Your task to perform on an android device: What's the time in San Francisco? Image 0: 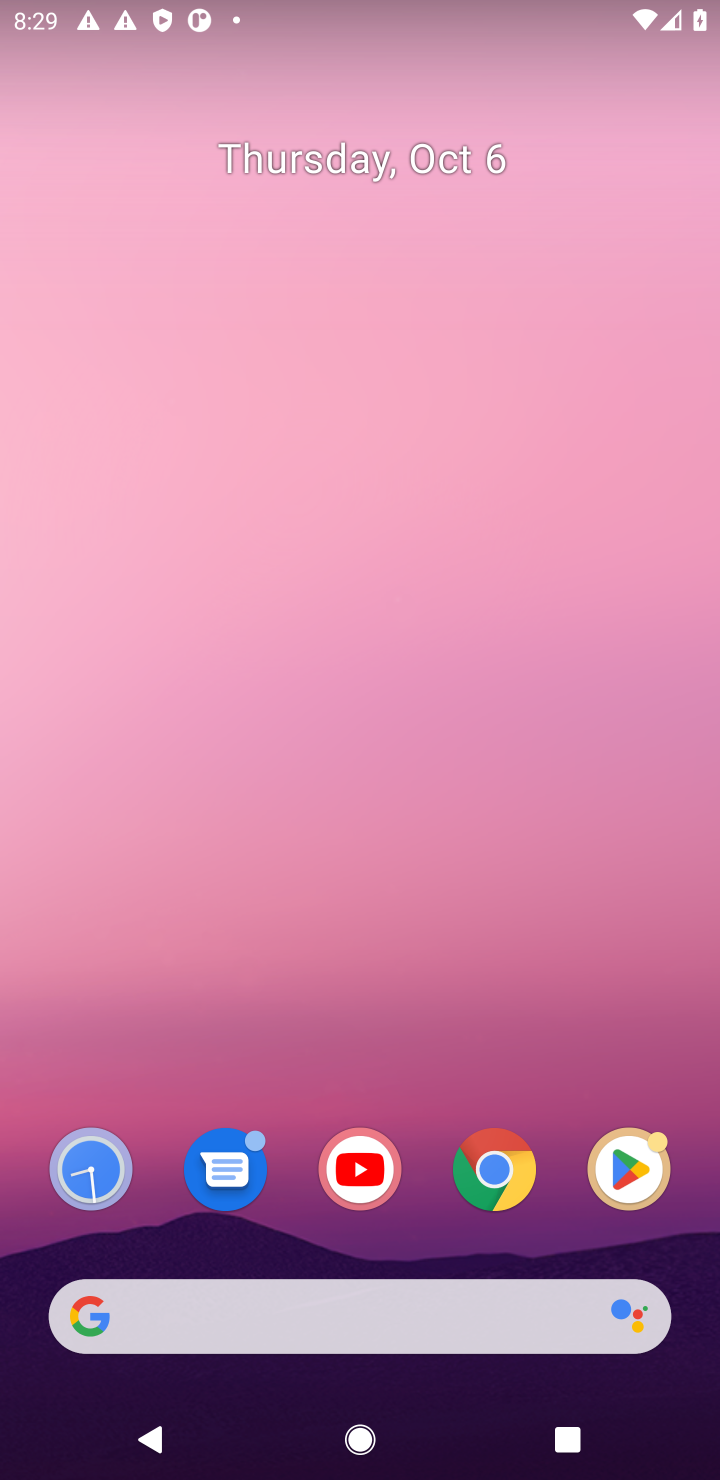
Step 0: click (538, 0)
Your task to perform on an android device: What's the time in San Francisco? Image 1: 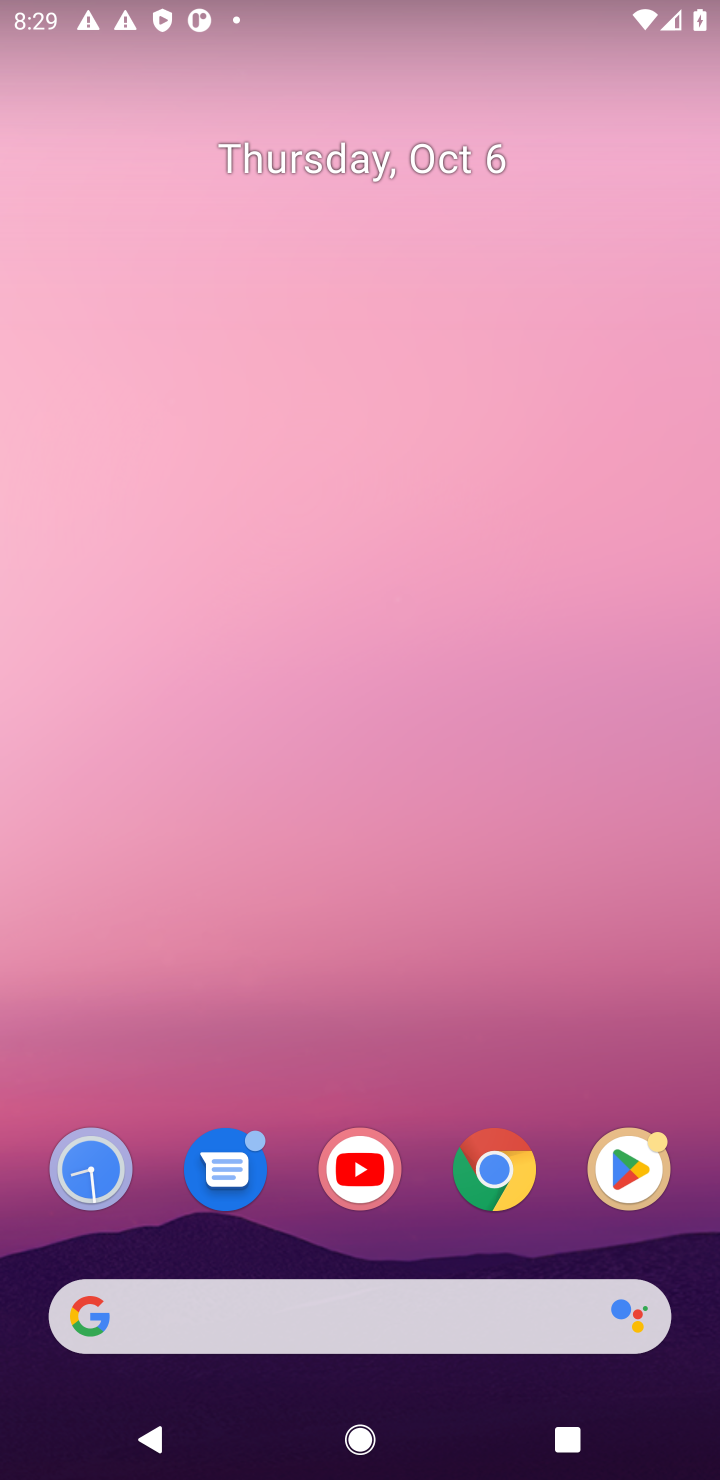
Step 1: drag from (373, 1202) to (485, 244)
Your task to perform on an android device: What's the time in San Francisco? Image 2: 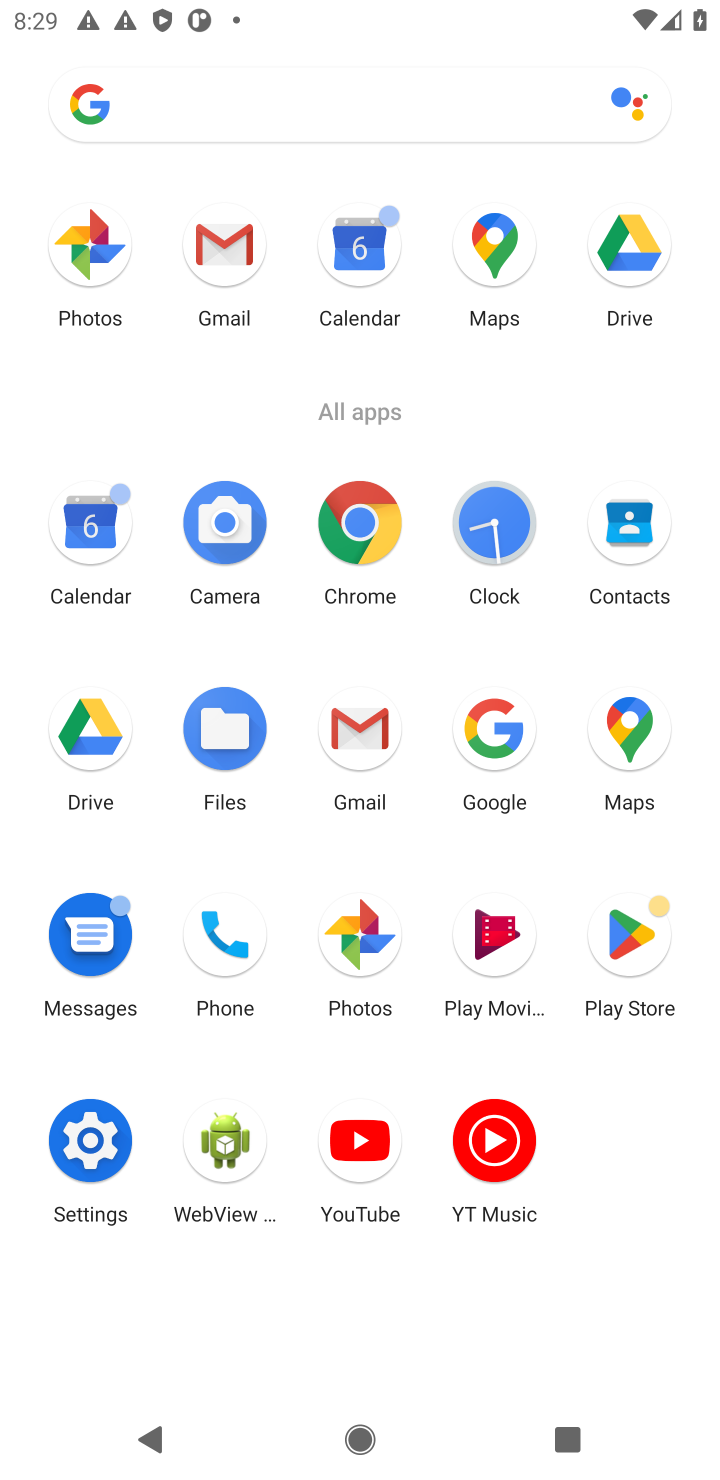
Step 2: click (490, 753)
Your task to perform on an android device: What's the time in San Francisco? Image 3: 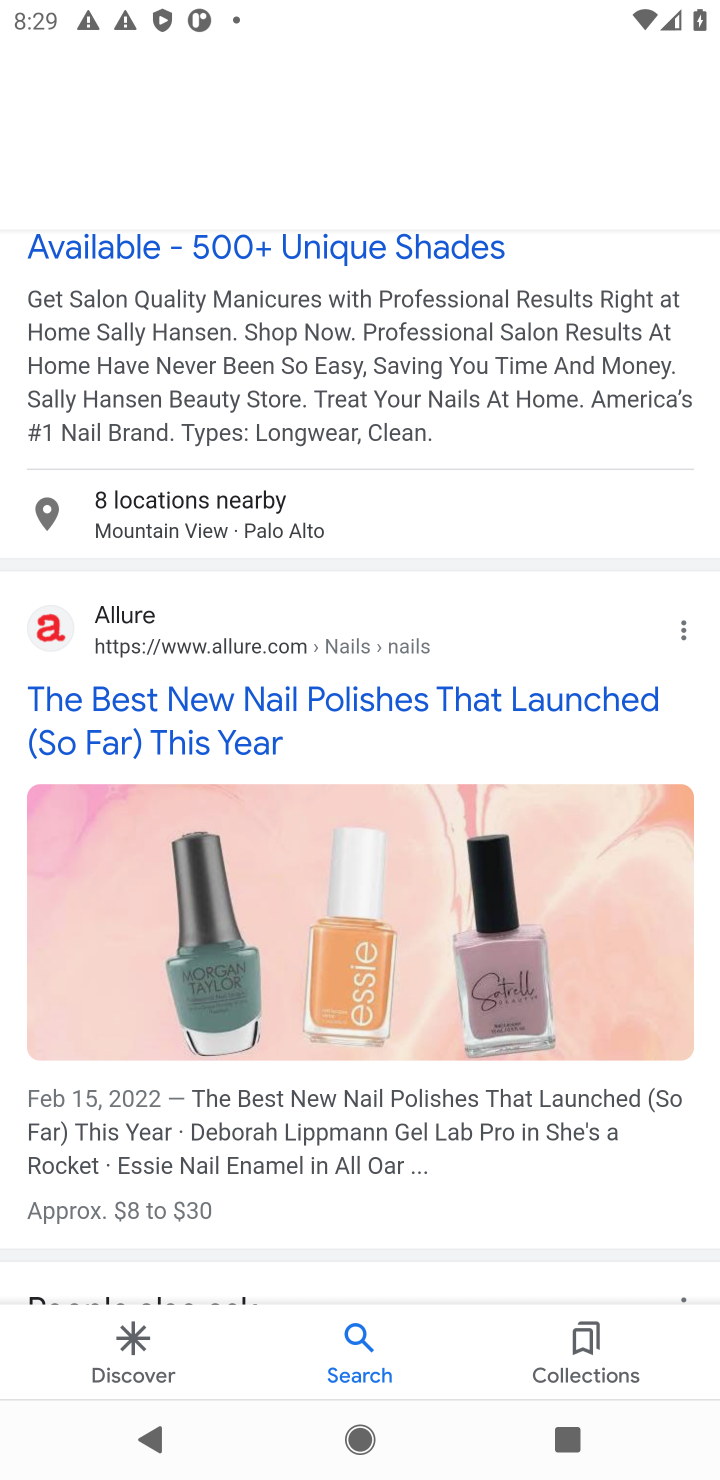
Step 3: drag from (358, 288) to (326, 1249)
Your task to perform on an android device: What's the time in San Francisco? Image 4: 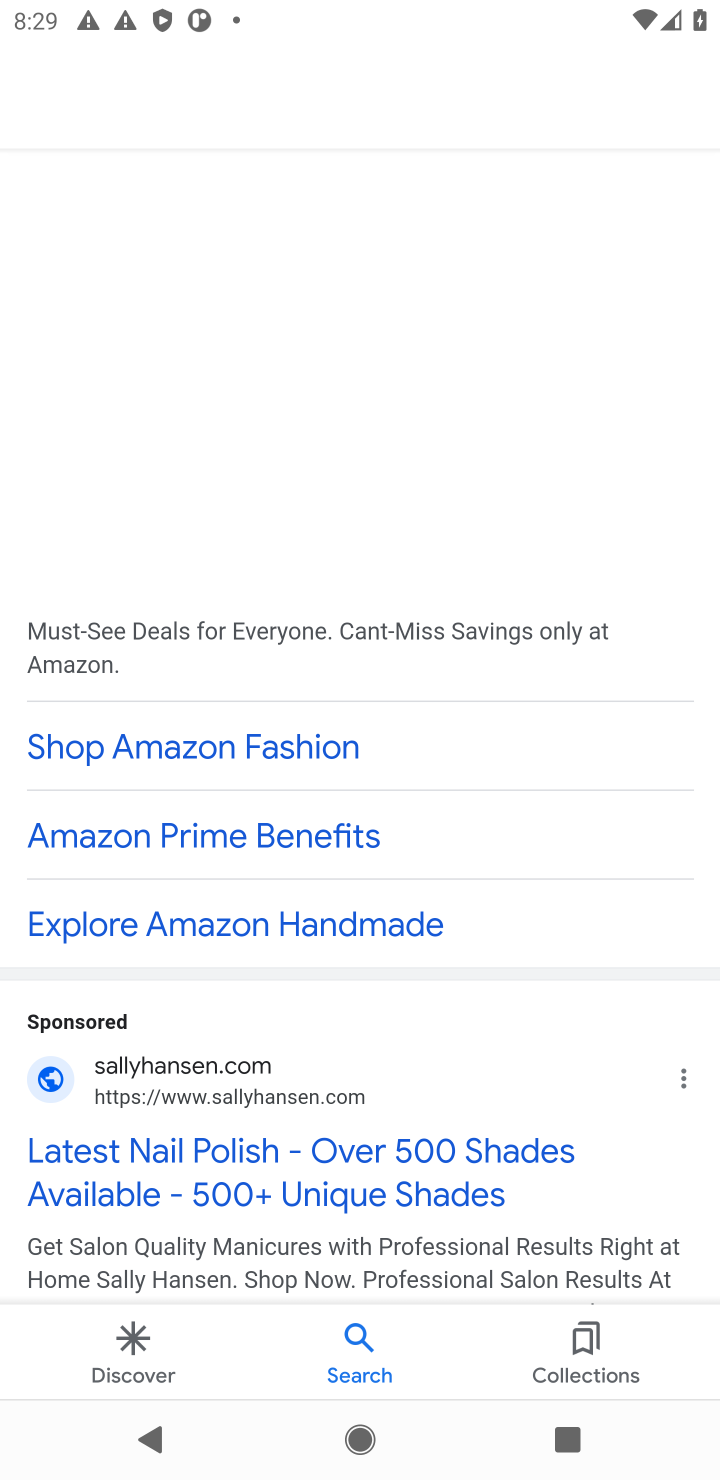
Step 4: drag from (419, 341) to (408, 1292)
Your task to perform on an android device: What's the time in San Francisco? Image 5: 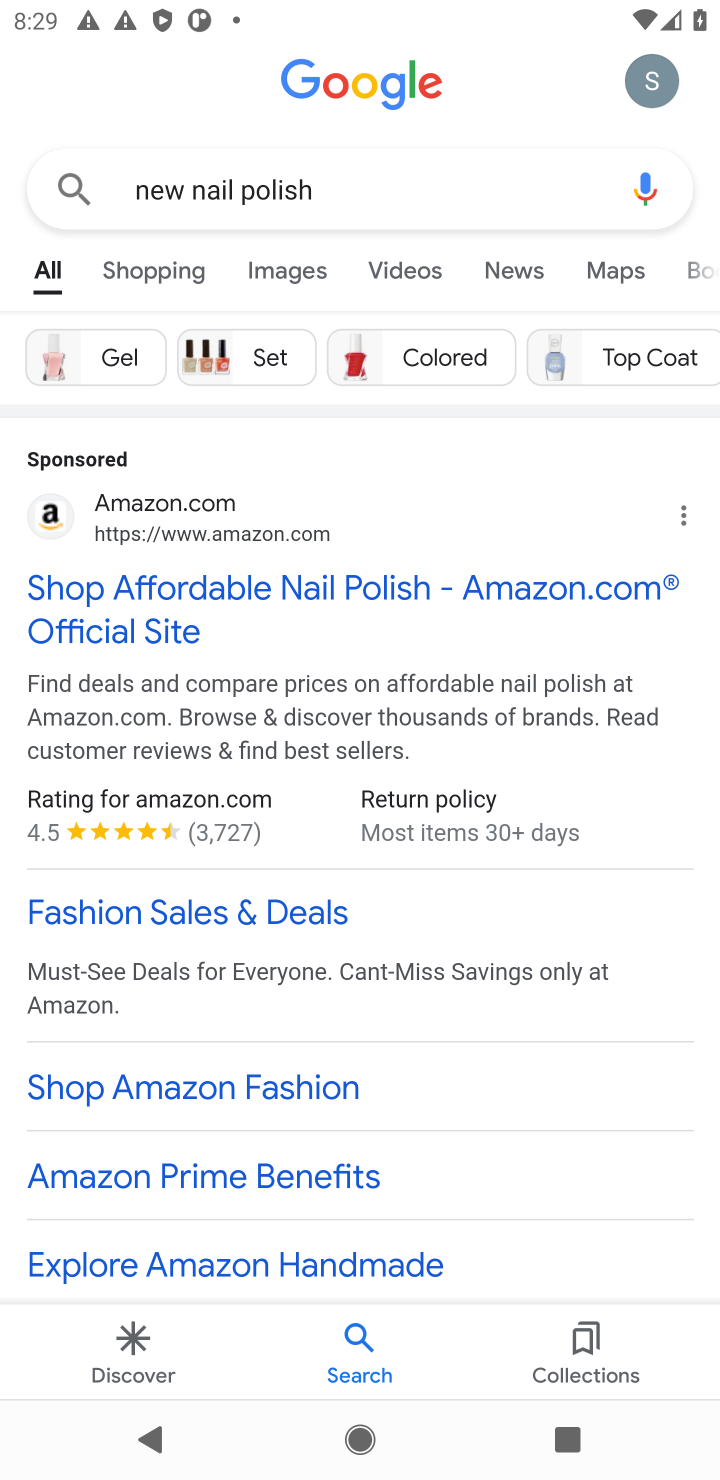
Step 5: click (417, 177)
Your task to perform on an android device: What's the time in San Francisco? Image 6: 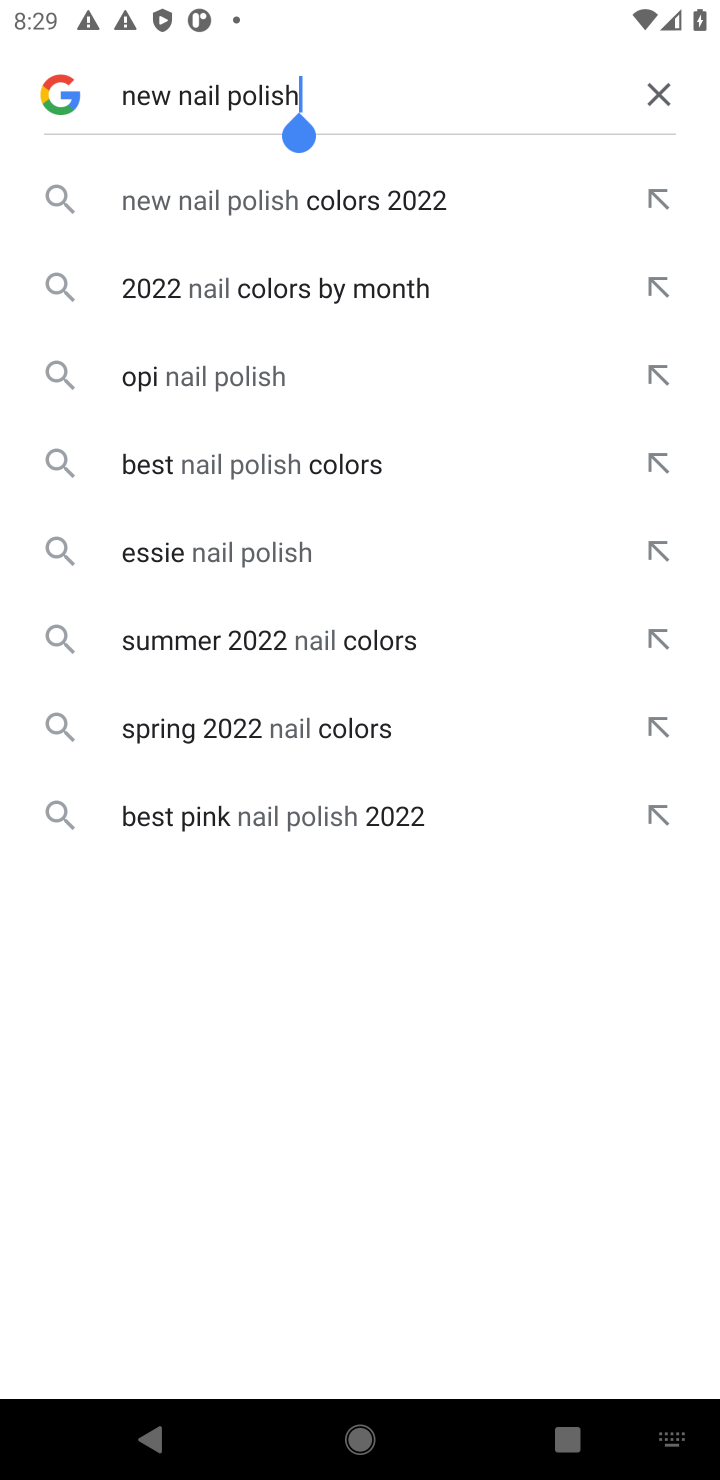
Step 6: click (646, 94)
Your task to perform on an android device: What's the time in San Francisco? Image 7: 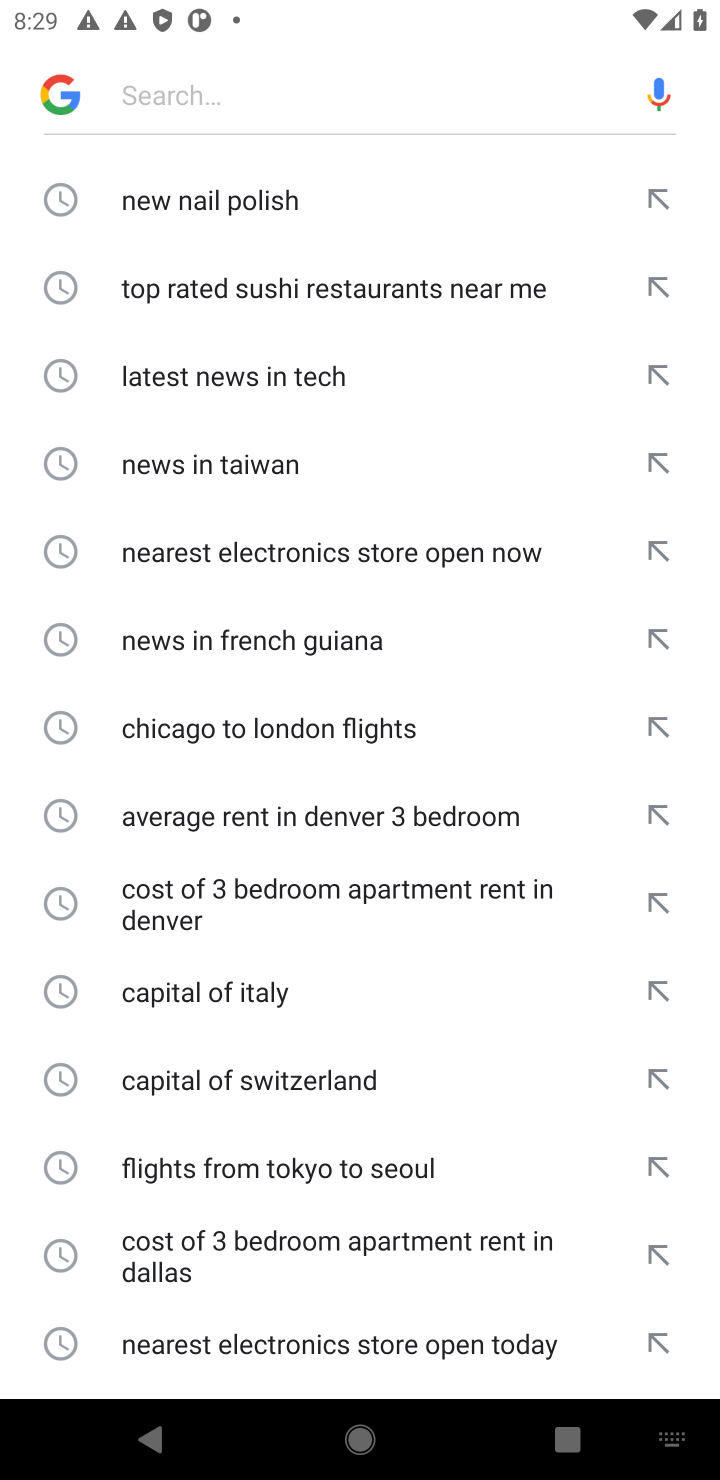
Step 7: click (210, 106)
Your task to perform on an android device: What's the time in San Francisco? Image 8: 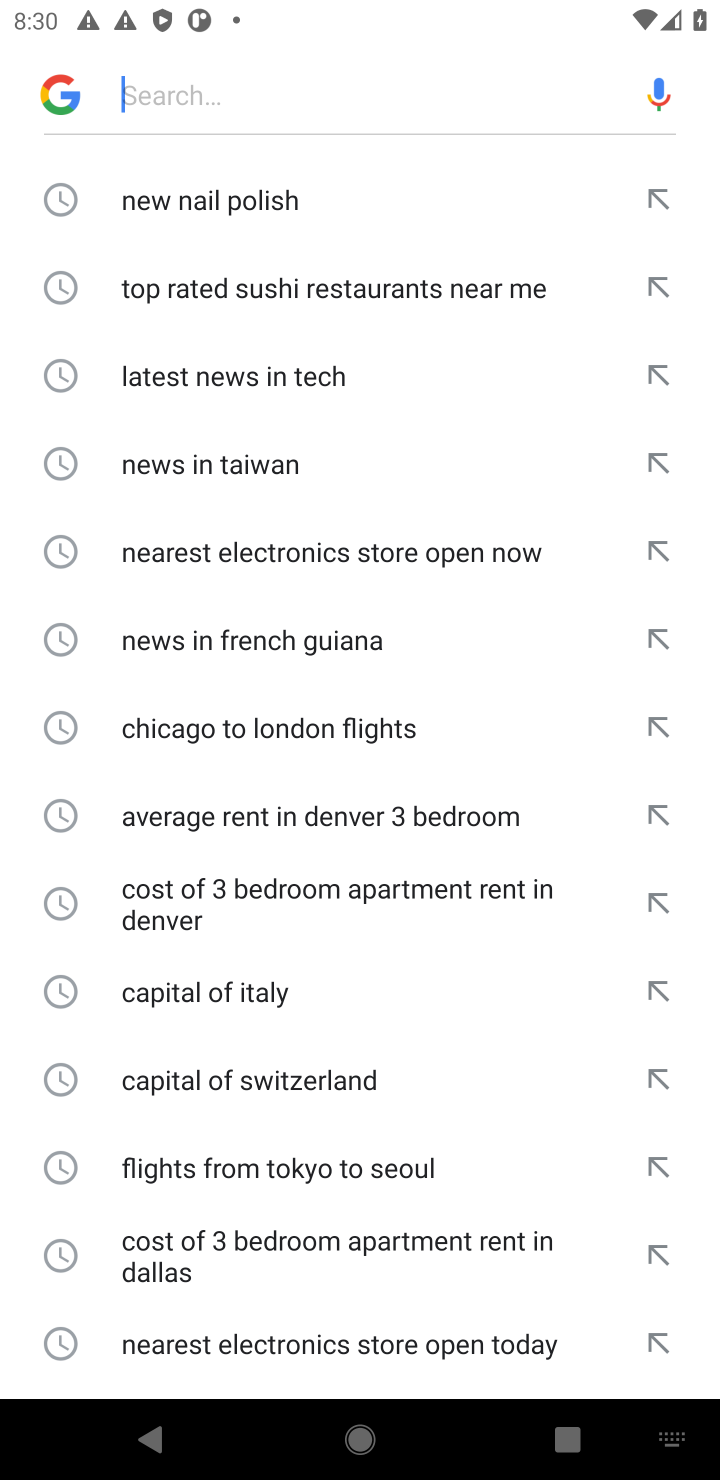
Step 8: type "time in San Francisco"
Your task to perform on an android device: What's the time in San Francisco? Image 9: 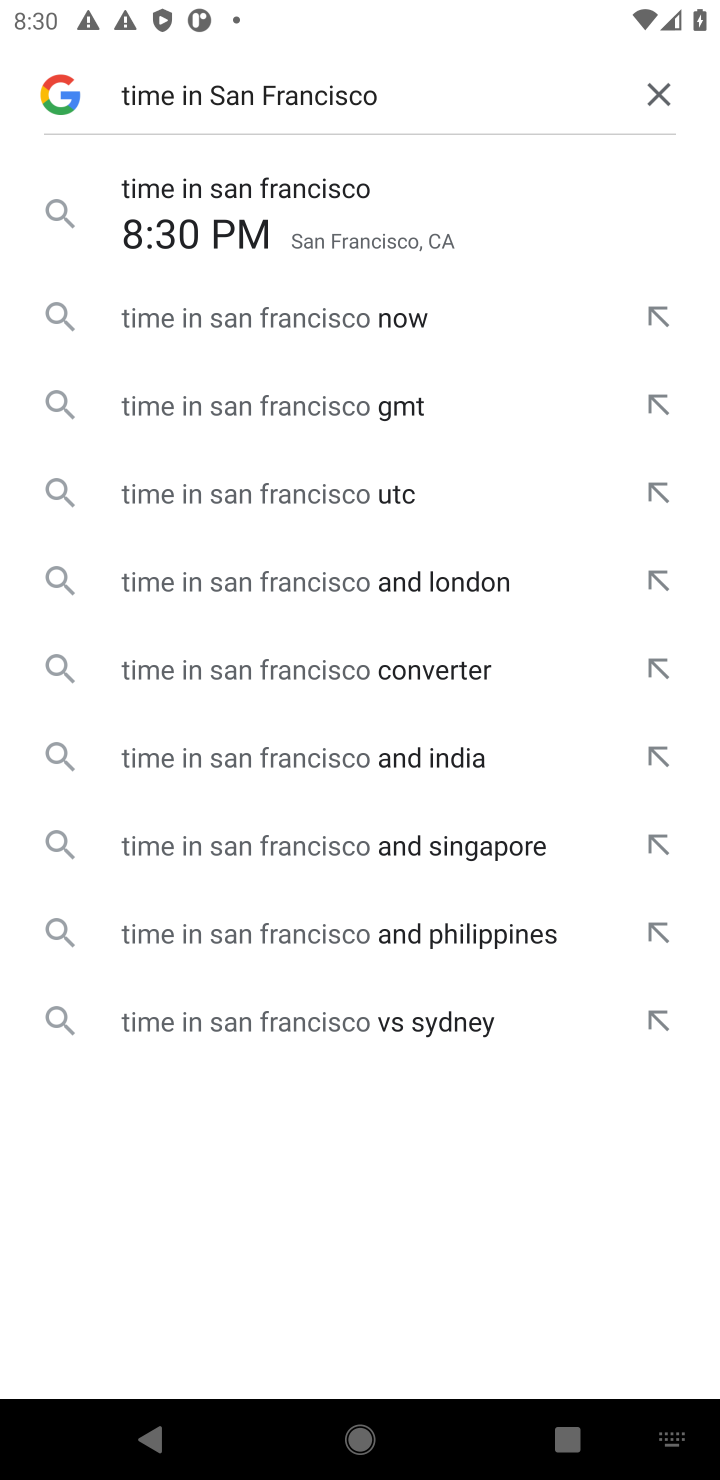
Step 9: click (287, 191)
Your task to perform on an android device: What's the time in San Francisco? Image 10: 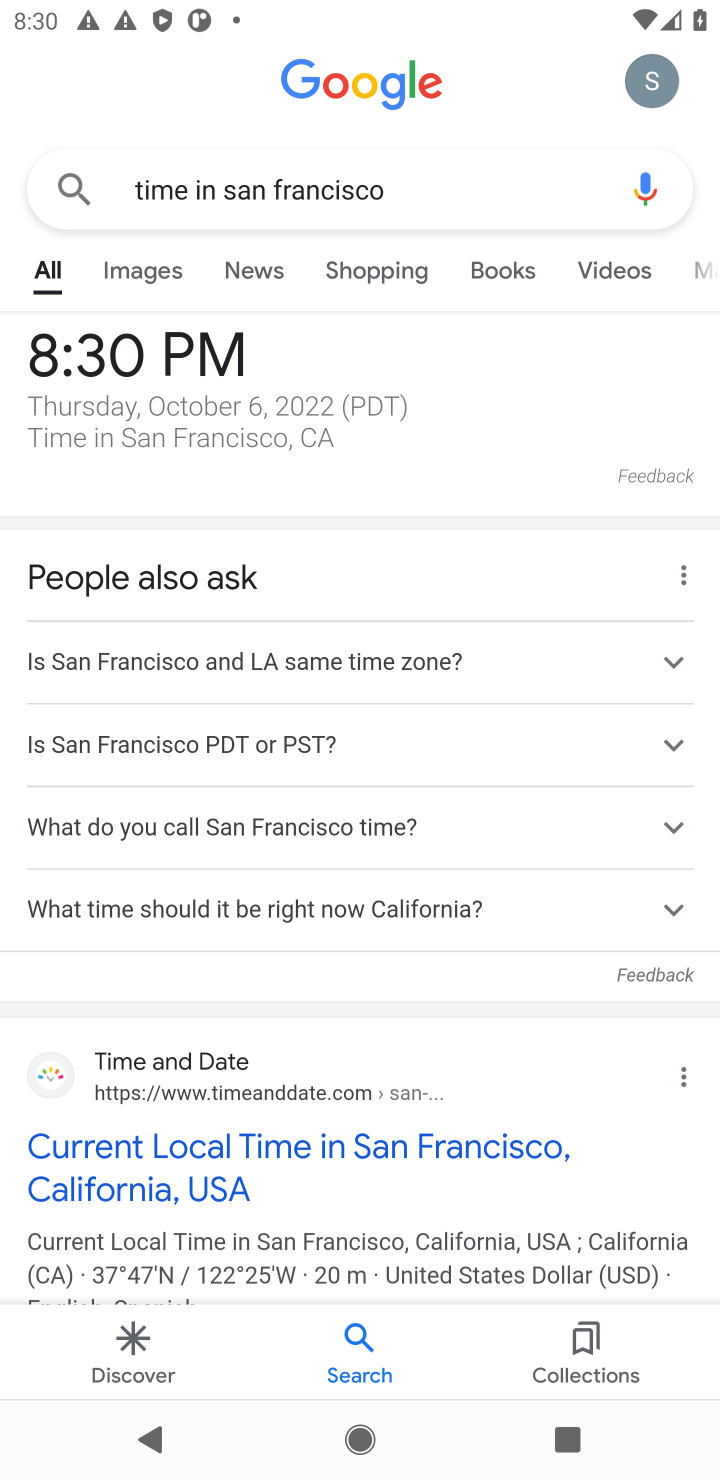
Step 10: task complete